Your task to perform on an android device: Go to Amazon Image 0: 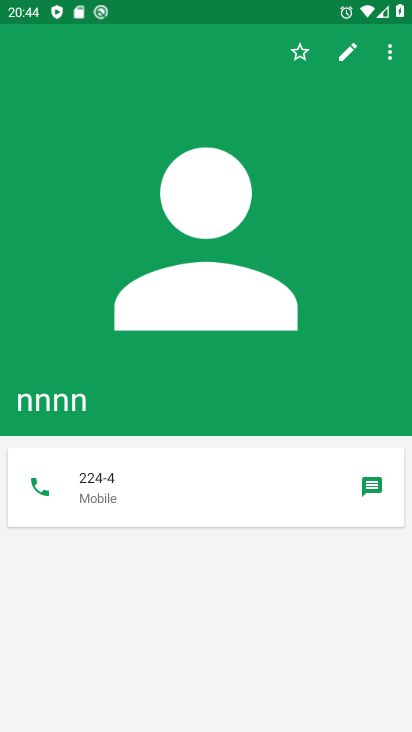
Step 0: press home button
Your task to perform on an android device: Go to Amazon Image 1: 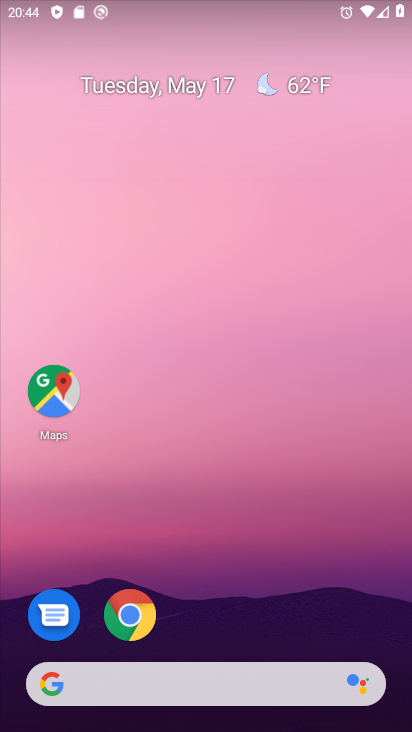
Step 1: click (137, 609)
Your task to perform on an android device: Go to Amazon Image 2: 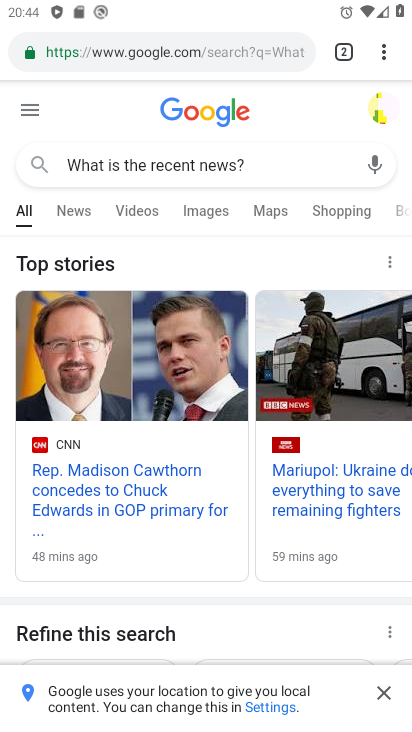
Step 2: press home button
Your task to perform on an android device: Go to Amazon Image 3: 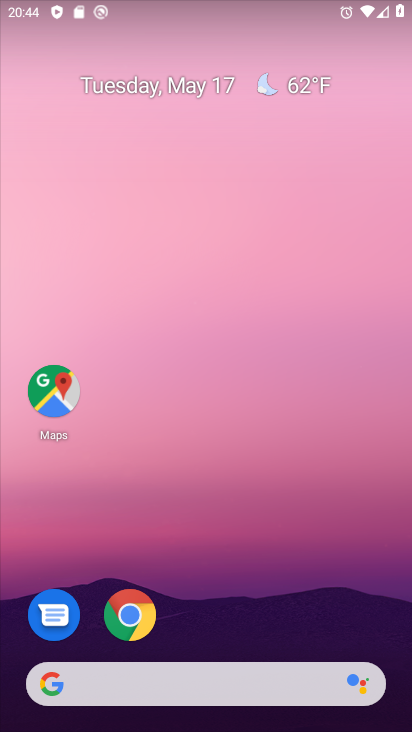
Step 3: click (120, 625)
Your task to perform on an android device: Go to Amazon Image 4: 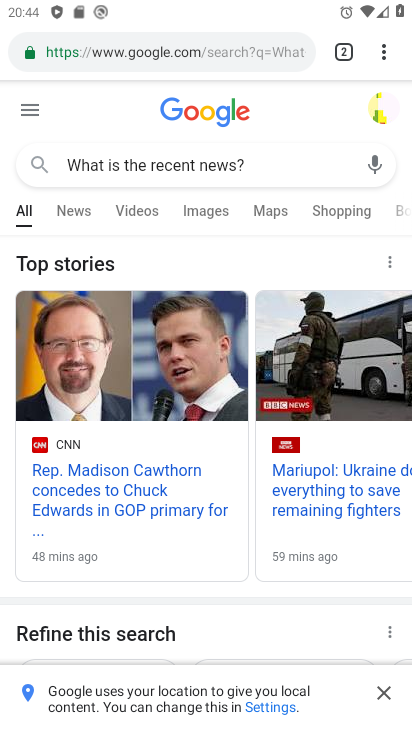
Step 4: drag from (387, 50) to (234, 110)
Your task to perform on an android device: Go to Amazon Image 5: 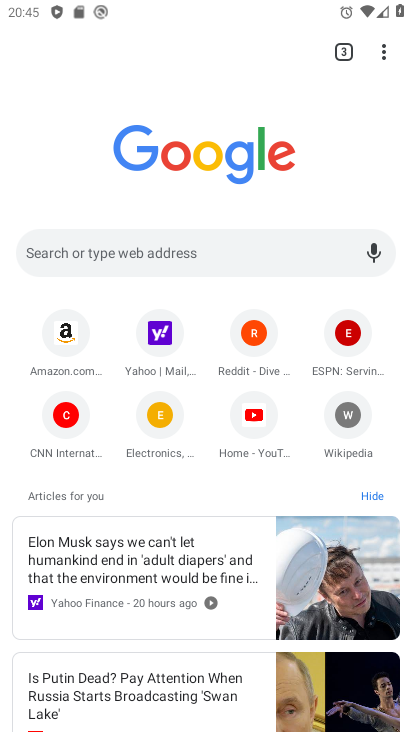
Step 5: click (61, 323)
Your task to perform on an android device: Go to Amazon Image 6: 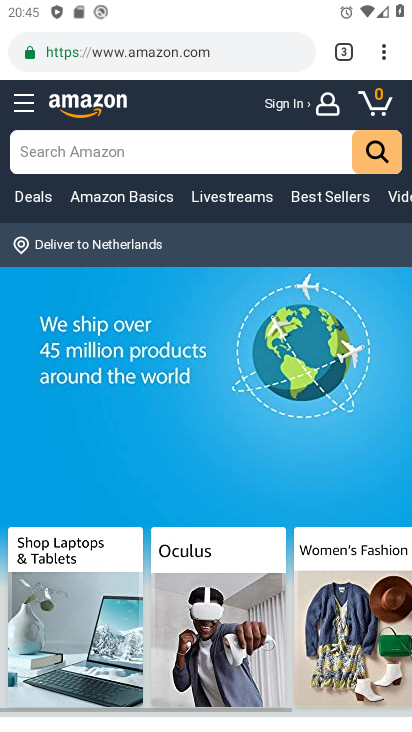
Step 6: task complete